Your task to perform on an android device: Go to internet settings Image 0: 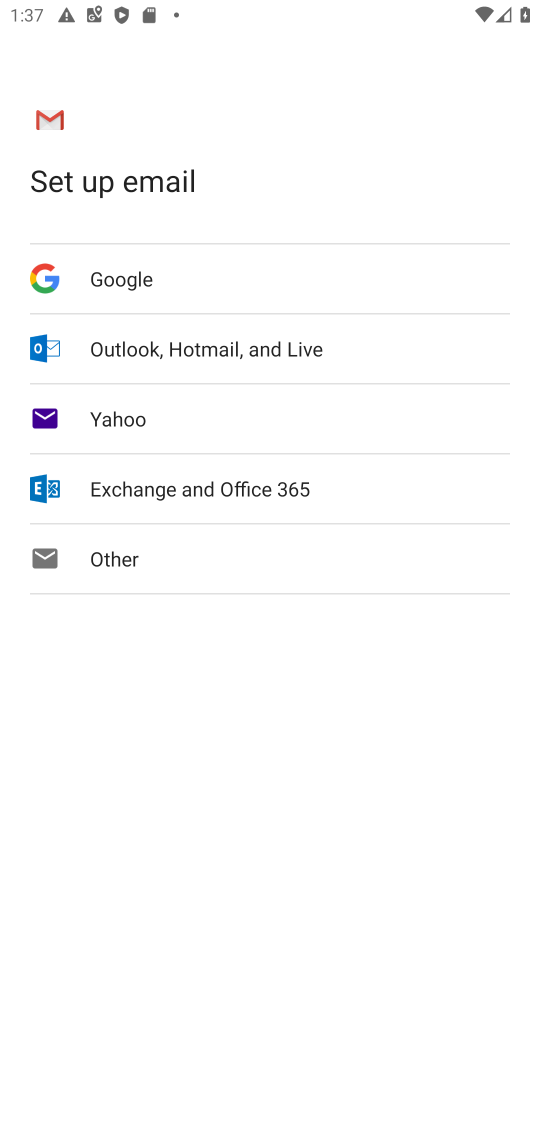
Step 0: press home button
Your task to perform on an android device: Go to internet settings Image 1: 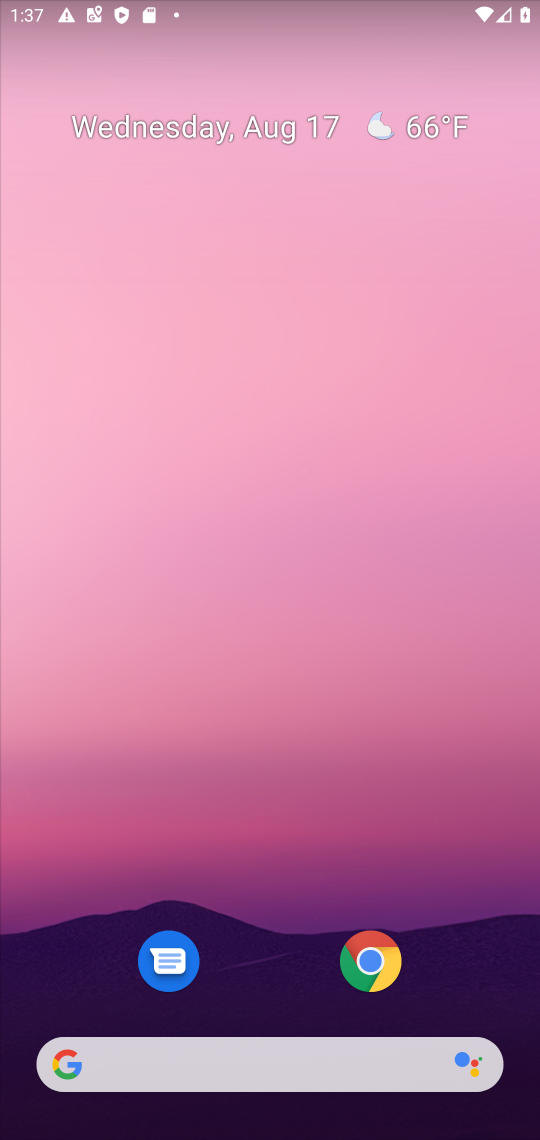
Step 1: drag from (283, 812) to (350, 269)
Your task to perform on an android device: Go to internet settings Image 2: 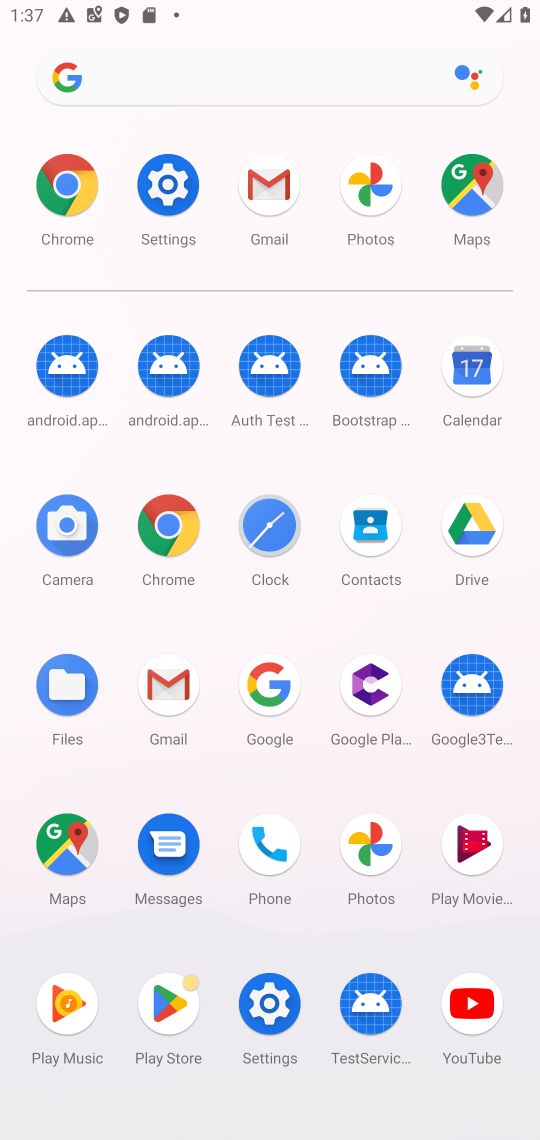
Step 2: click (157, 235)
Your task to perform on an android device: Go to internet settings Image 3: 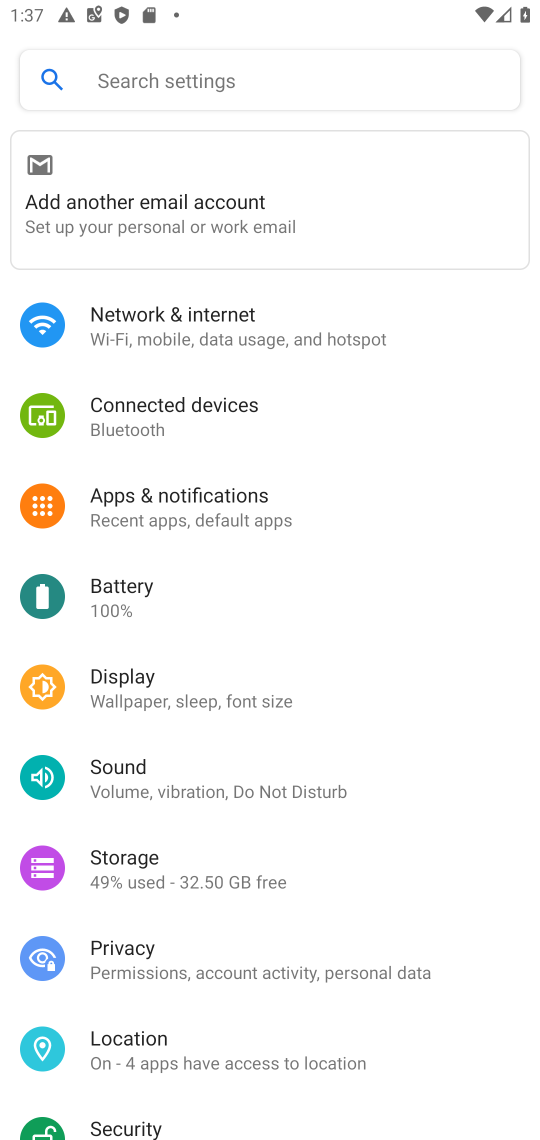
Step 3: click (266, 343)
Your task to perform on an android device: Go to internet settings Image 4: 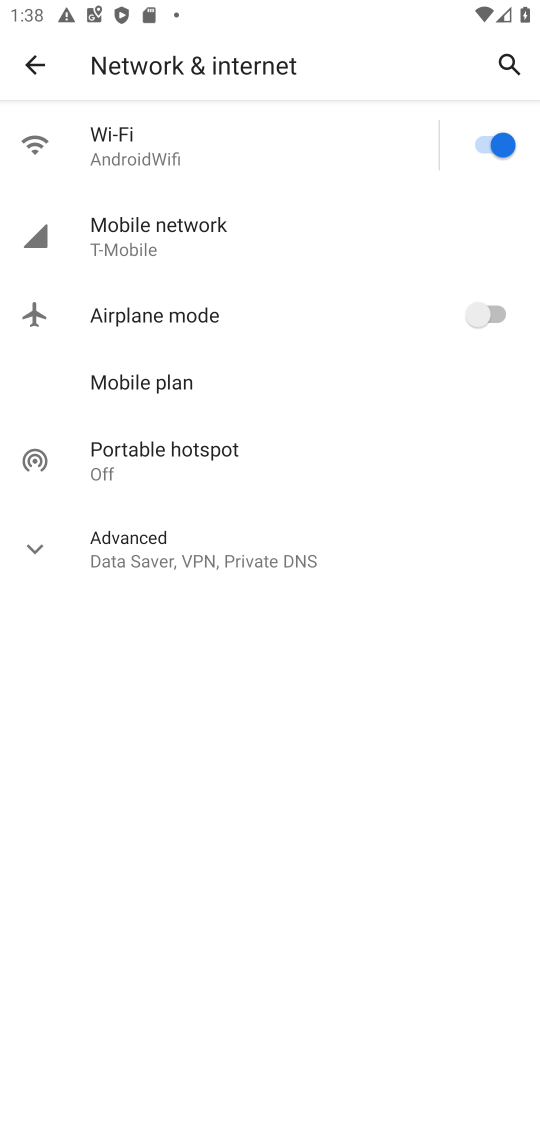
Step 4: click (199, 253)
Your task to perform on an android device: Go to internet settings Image 5: 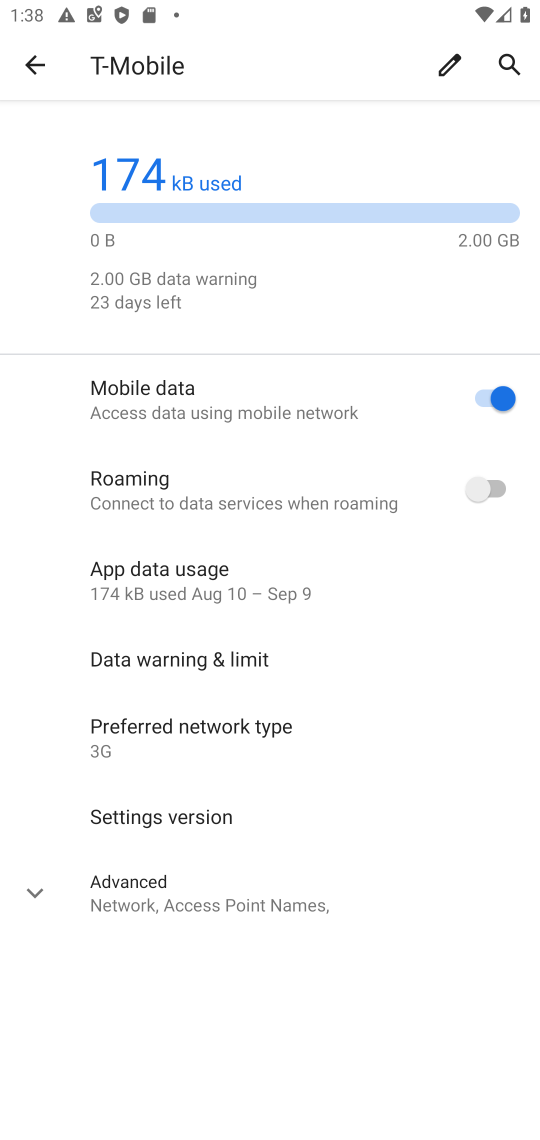
Step 5: click (291, 571)
Your task to perform on an android device: Go to internet settings Image 6: 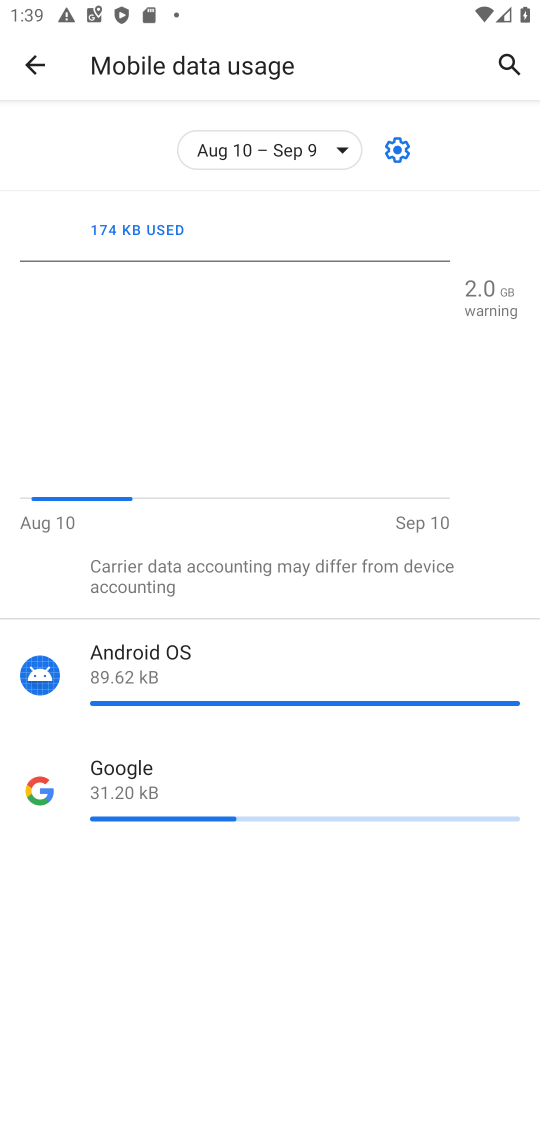
Step 6: task complete